Your task to perform on an android device: toggle airplane mode Image 0: 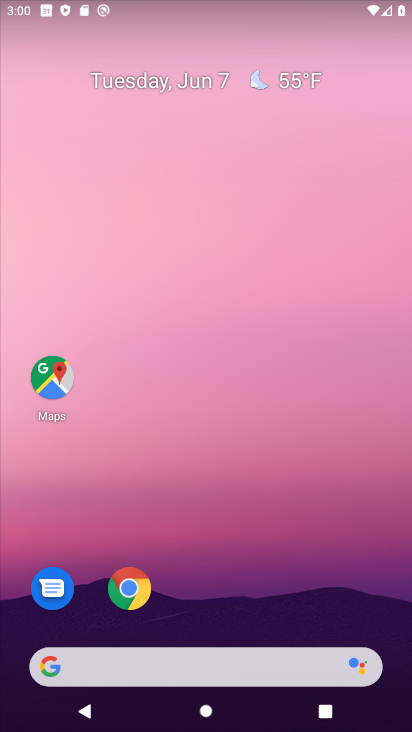
Step 0: drag from (299, 4) to (356, 731)
Your task to perform on an android device: toggle airplane mode Image 1: 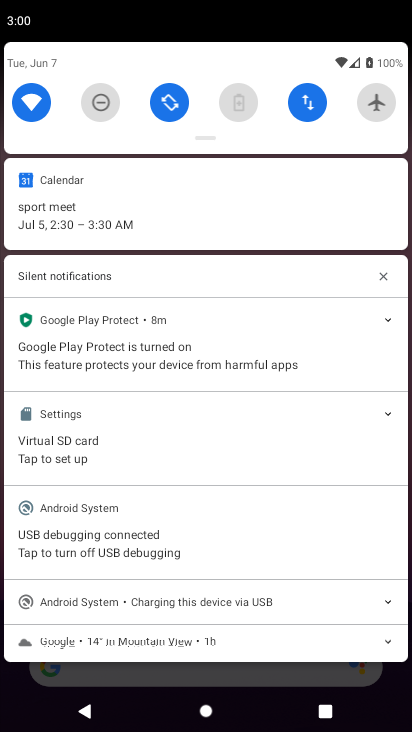
Step 1: click (380, 103)
Your task to perform on an android device: toggle airplane mode Image 2: 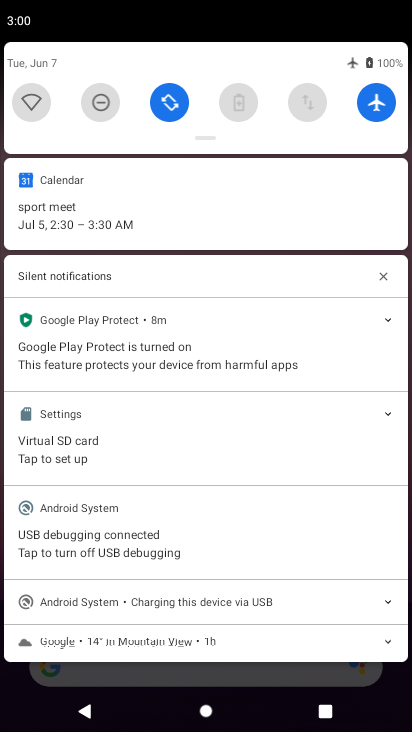
Step 2: task complete